Your task to perform on an android device: turn off wifi Image 0: 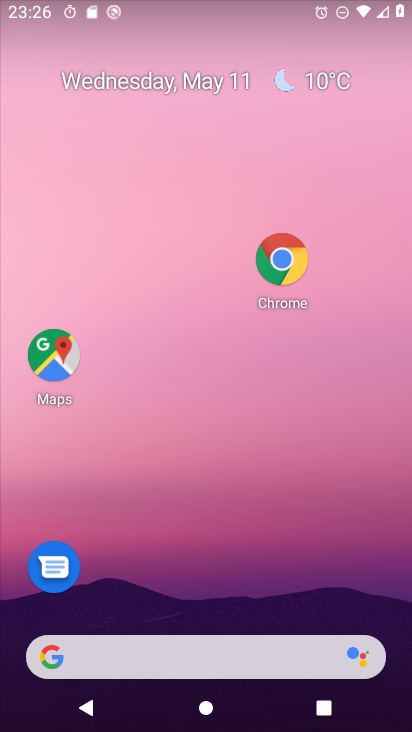
Step 0: drag from (173, 660) to (381, 22)
Your task to perform on an android device: turn off wifi Image 1: 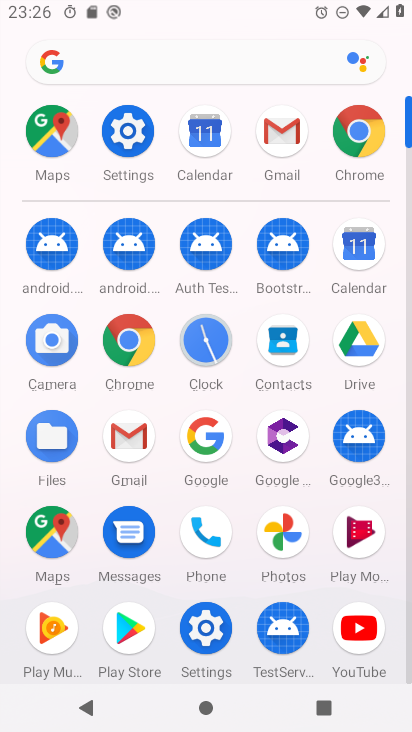
Step 1: click (126, 139)
Your task to perform on an android device: turn off wifi Image 2: 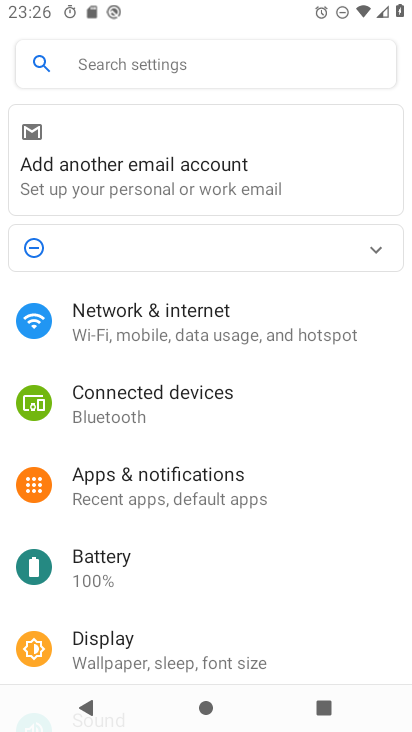
Step 2: click (205, 309)
Your task to perform on an android device: turn off wifi Image 3: 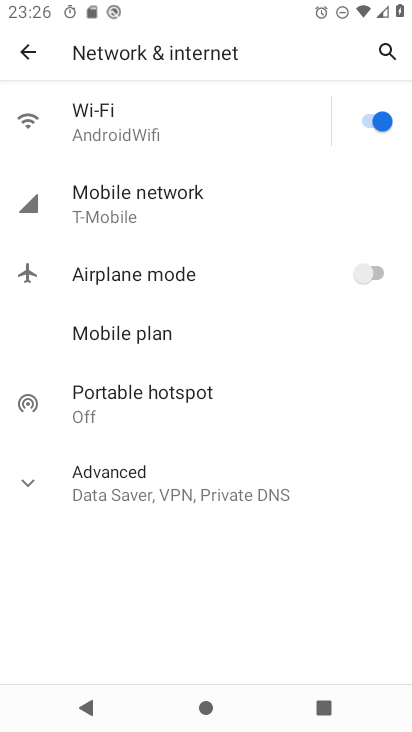
Step 3: click (368, 119)
Your task to perform on an android device: turn off wifi Image 4: 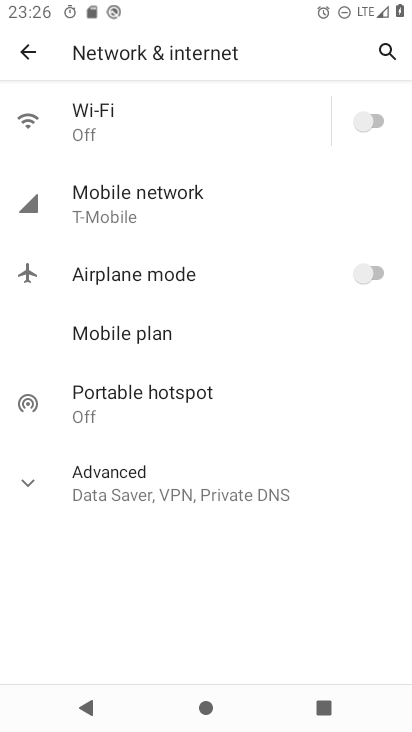
Step 4: task complete